Your task to perform on an android device: Show me popular games on the Play Store Image 0: 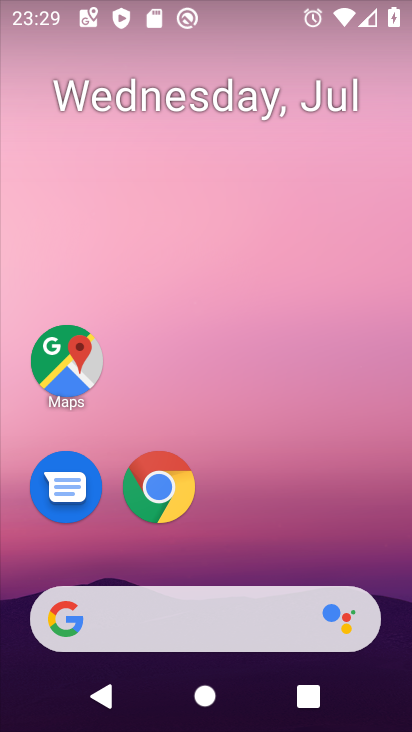
Step 0: drag from (224, 539) to (280, 0)
Your task to perform on an android device: Show me popular games on the Play Store Image 1: 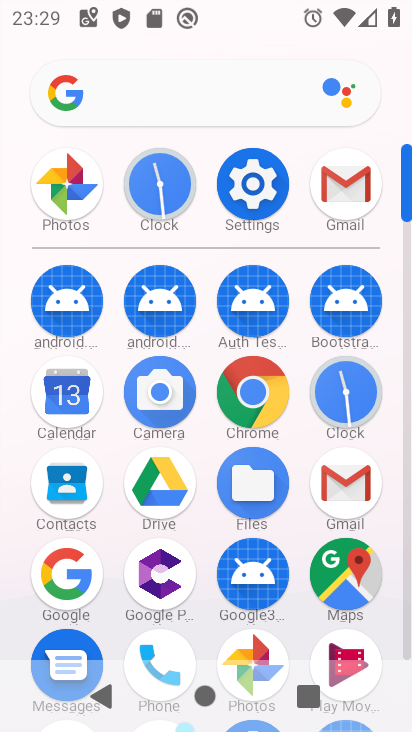
Step 1: drag from (210, 551) to (292, 34)
Your task to perform on an android device: Show me popular games on the Play Store Image 2: 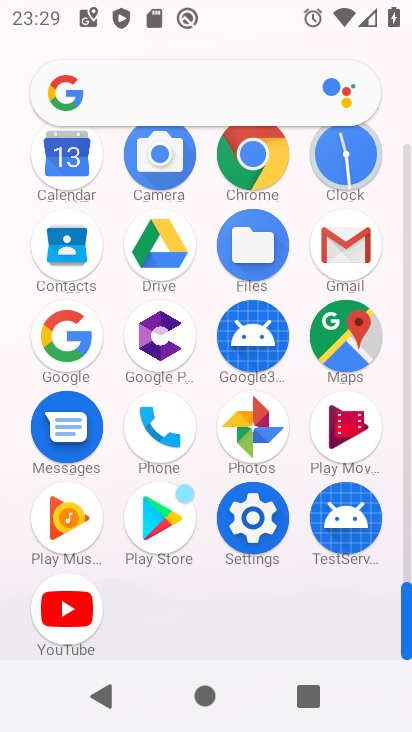
Step 2: click (162, 535)
Your task to perform on an android device: Show me popular games on the Play Store Image 3: 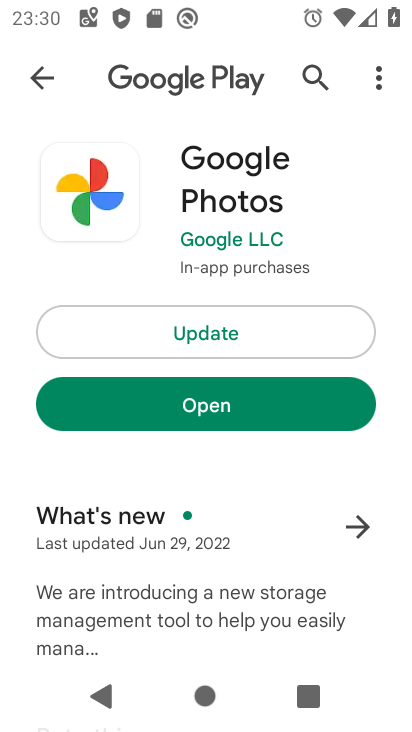
Step 3: click (45, 75)
Your task to perform on an android device: Show me popular games on the Play Store Image 4: 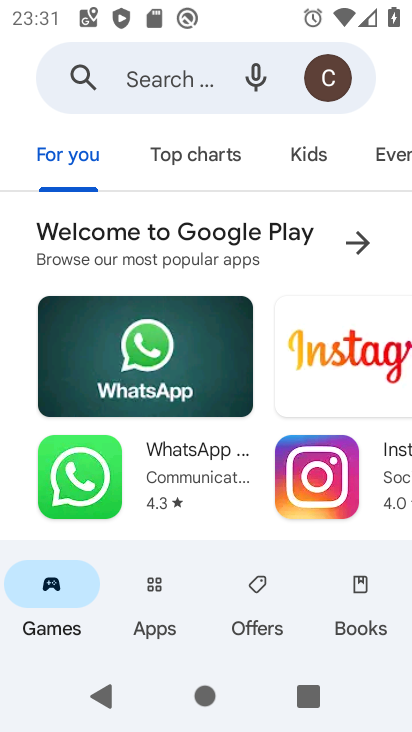
Step 4: click (66, 586)
Your task to perform on an android device: Show me popular games on the Play Store Image 5: 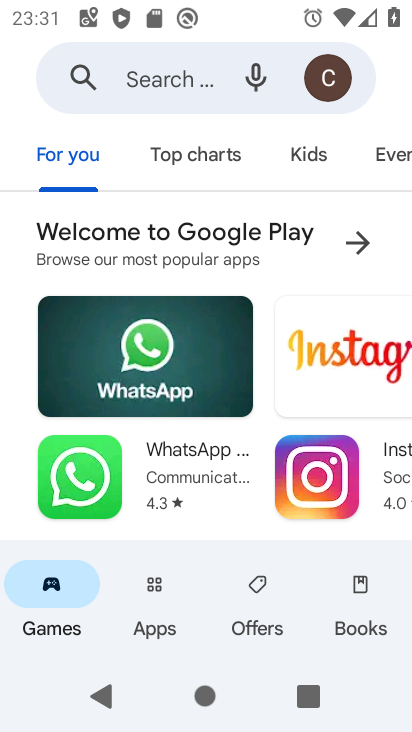
Step 5: click (64, 598)
Your task to perform on an android device: Show me popular games on the Play Store Image 6: 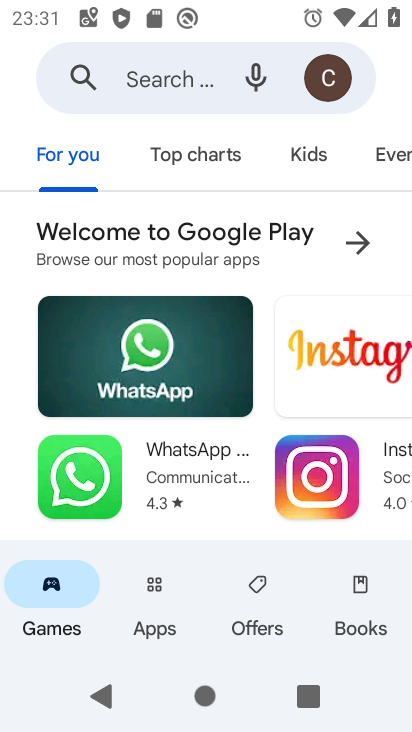
Step 6: drag from (215, 488) to (290, 31)
Your task to perform on an android device: Show me popular games on the Play Store Image 7: 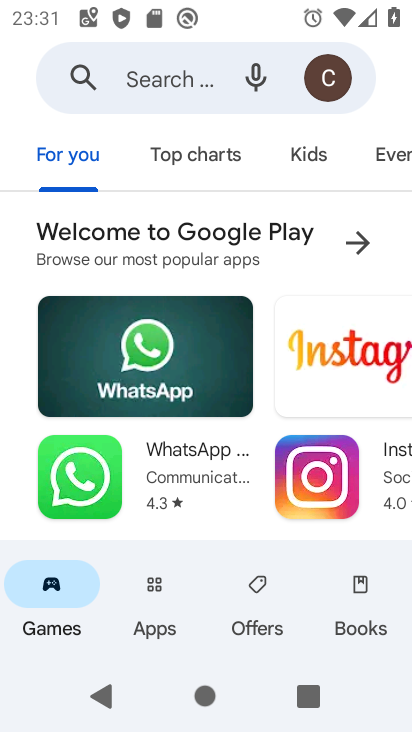
Step 7: drag from (239, 467) to (282, 15)
Your task to perform on an android device: Show me popular games on the Play Store Image 8: 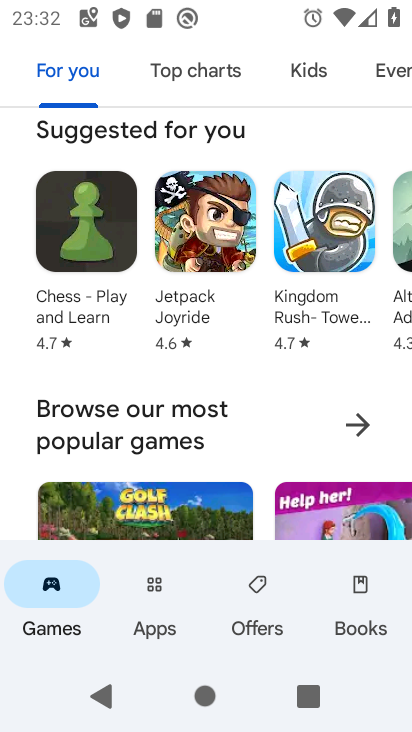
Step 8: click (348, 420)
Your task to perform on an android device: Show me popular games on the Play Store Image 9: 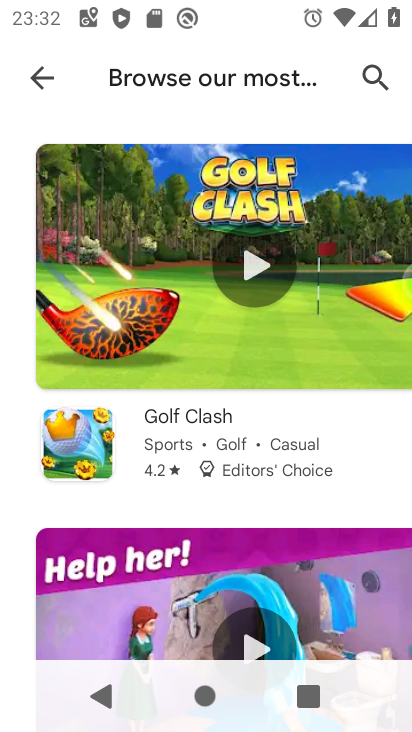
Step 9: task complete